Your task to perform on an android device: change the clock display to digital Image 0: 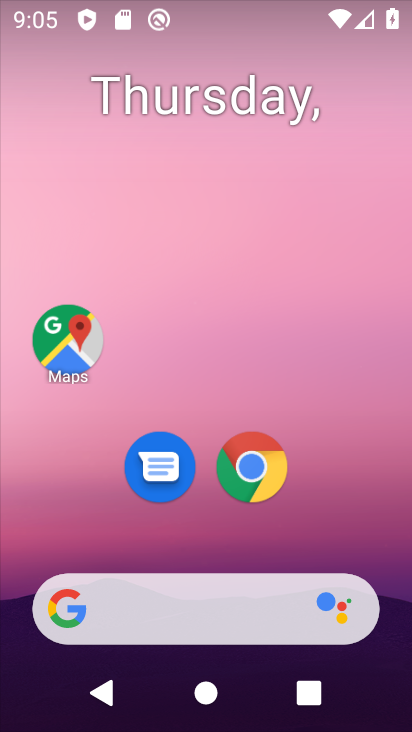
Step 0: drag from (339, 62) to (331, 0)
Your task to perform on an android device: change the clock display to digital Image 1: 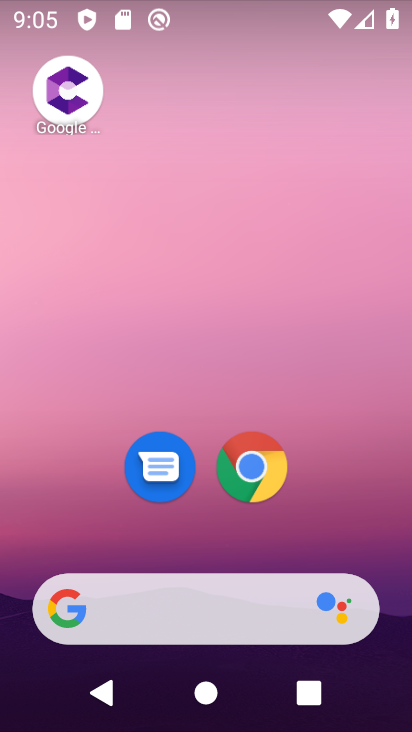
Step 1: drag from (369, 474) to (290, 2)
Your task to perform on an android device: change the clock display to digital Image 2: 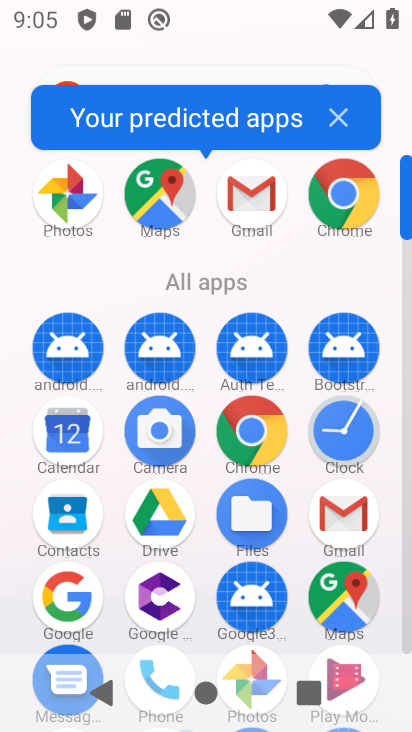
Step 2: click (336, 422)
Your task to perform on an android device: change the clock display to digital Image 3: 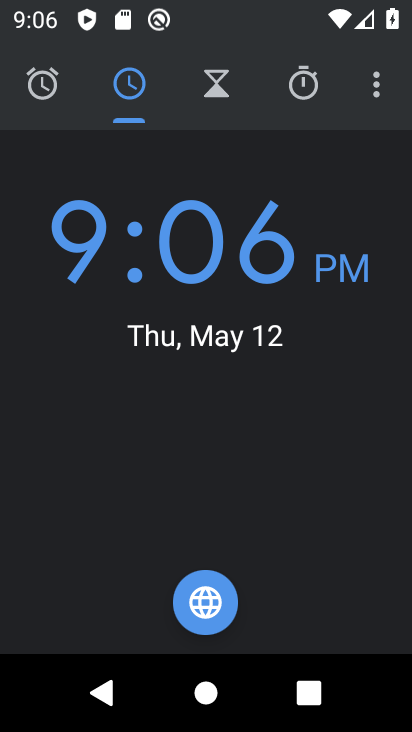
Step 3: click (372, 80)
Your task to perform on an android device: change the clock display to digital Image 4: 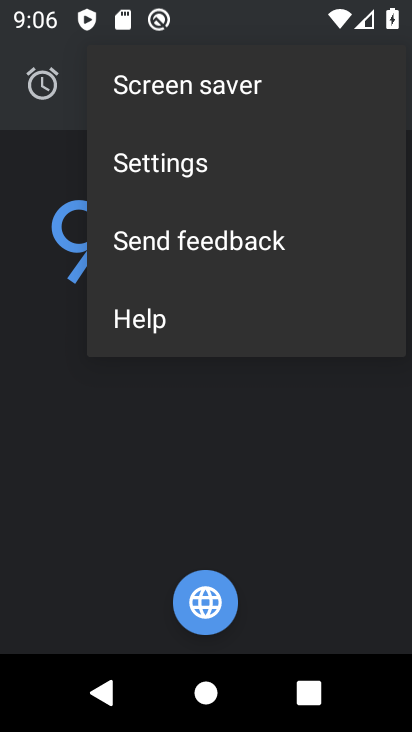
Step 4: click (217, 163)
Your task to perform on an android device: change the clock display to digital Image 5: 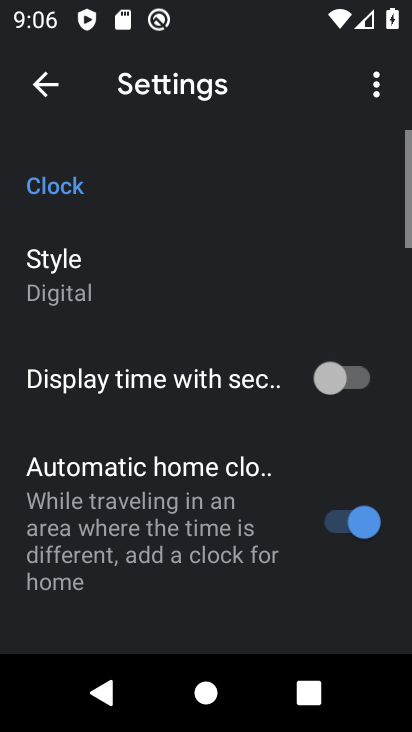
Step 5: click (54, 273)
Your task to perform on an android device: change the clock display to digital Image 6: 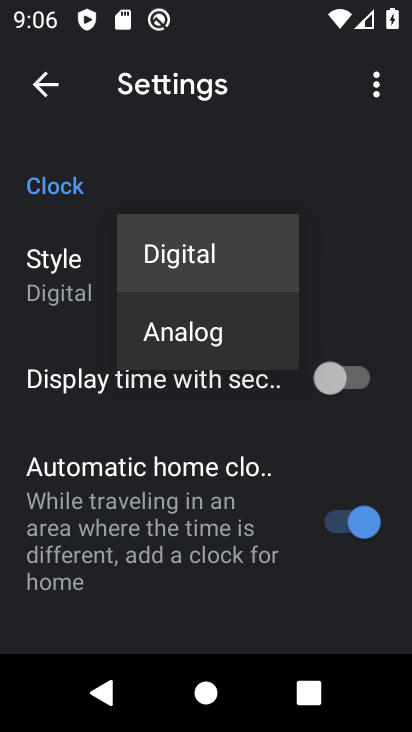
Step 6: task complete